Your task to perform on an android device: Turn on the flashlight Image 0: 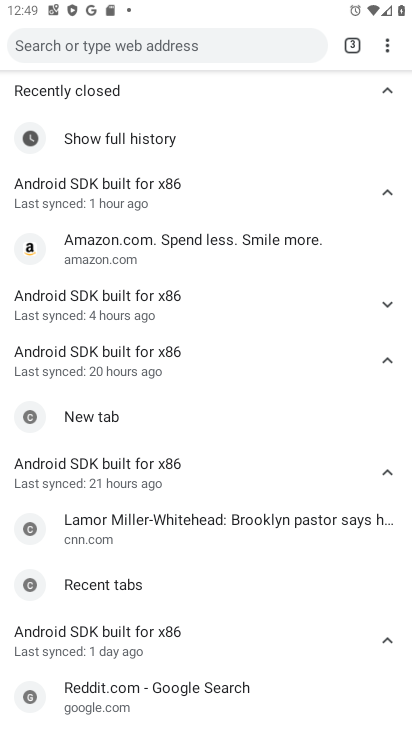
Step 0: drag from (256, 10) to (254, 671)
Your task to perform on an android device: Turn on the flashlight Image 1: 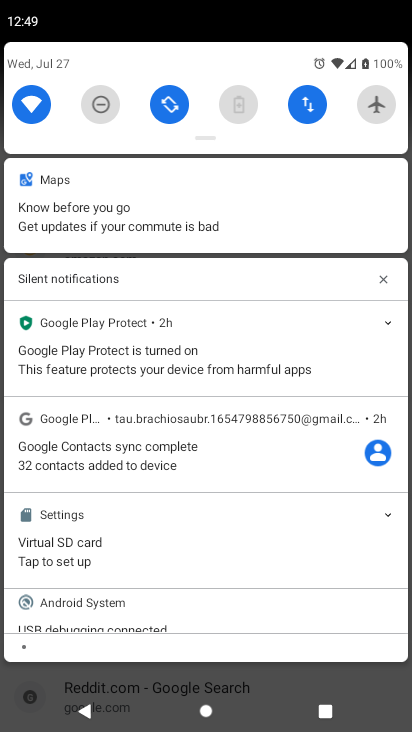
Step 1: task complete